Your task to perform on an android device: What's the weather going to be this weekend? Image 0: 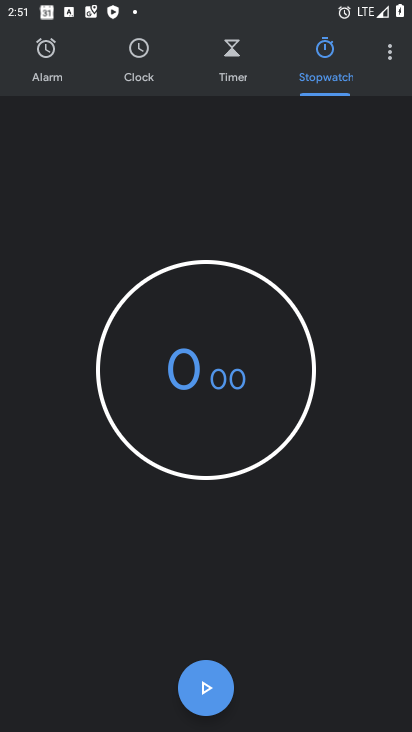
Step 0: press home button
Your task to perform on an android device: What's the weather going to be this weekend? Image 1: 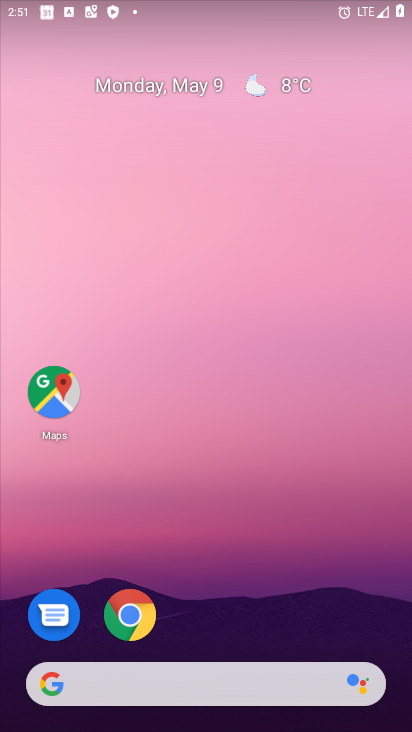
Step 1: click (284, 85)
Your task to perform on an android device: What's the weather going to be this weekend? Image 2: 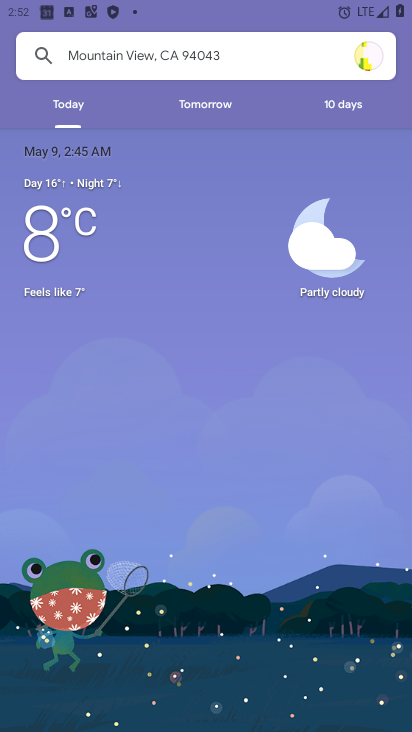
Step 2: click (332, 96)
Your task to perform on an android device: What's the weather going to be this weekend? Image 3: 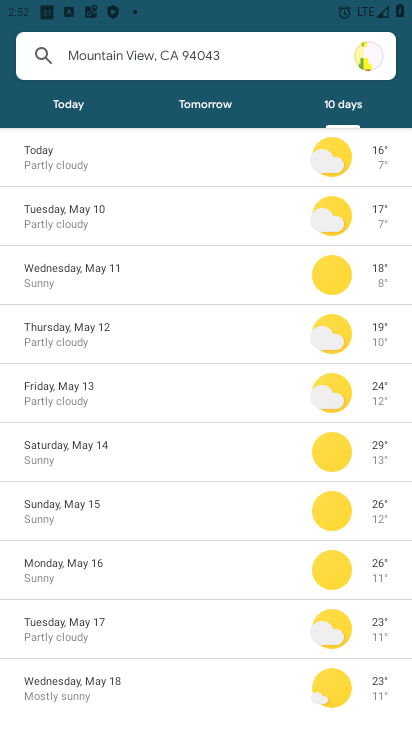
Step 3: task complete